Your task to perform on an android device: turn smart compose on in the gmail app Image 0: 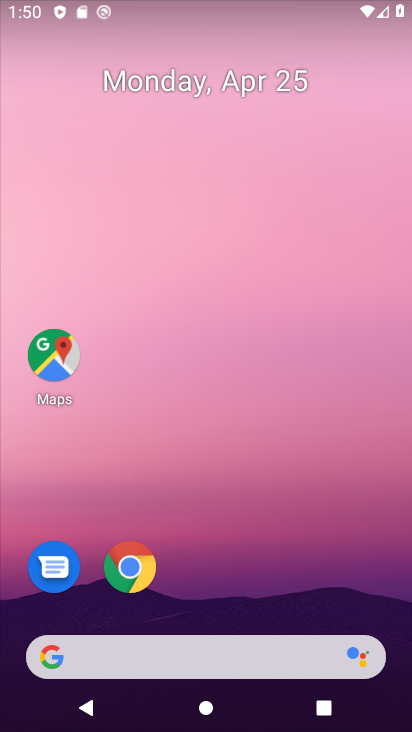
Step 0: drag from (272, 589) to (254, 216)
Your task to perform on an android device: turn smart compose on in the gmail app Image 1: 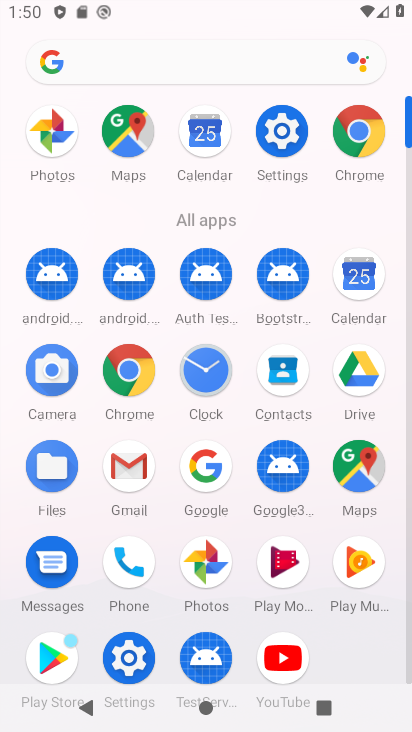
Step 1: click (127, 459)
Your task to perform on an android device: turn smart compose on in the gmail app Image 2: 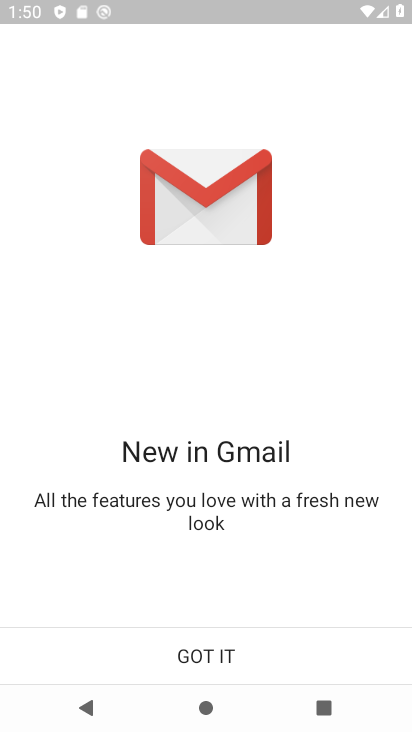
Step 2: click (229, 650)
Your task to perform on an android device: turn smart compose on in the gmail app Image 3: 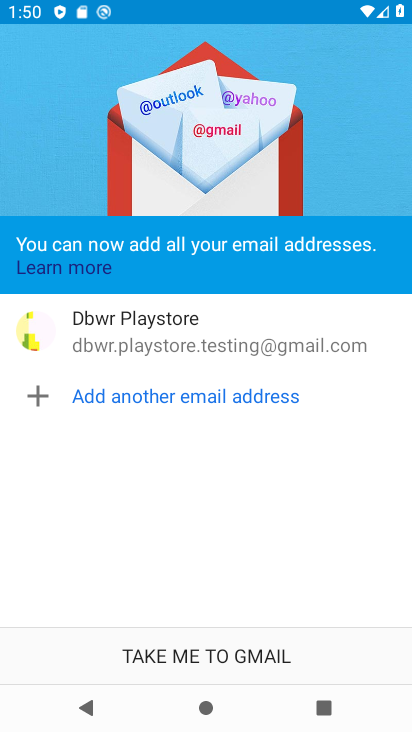
Step 3: click (229, 650)
Your task to perform on an android device: turn smart compose on in the gmail app Image 4: 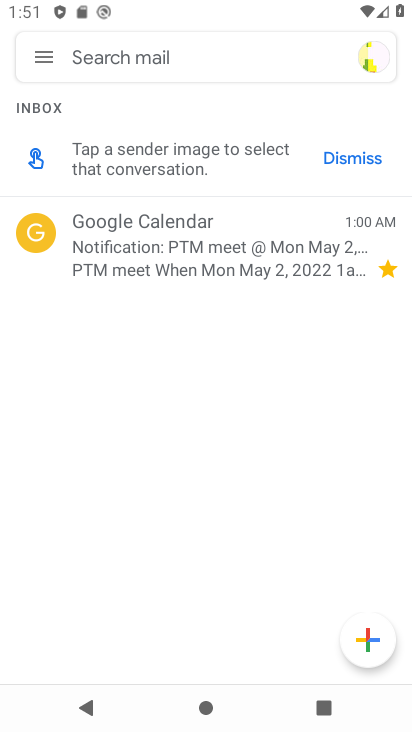
Step 4: click (42, 66)
Your task to perform on an android device: turn smart compose on in the gmail app Image 5: 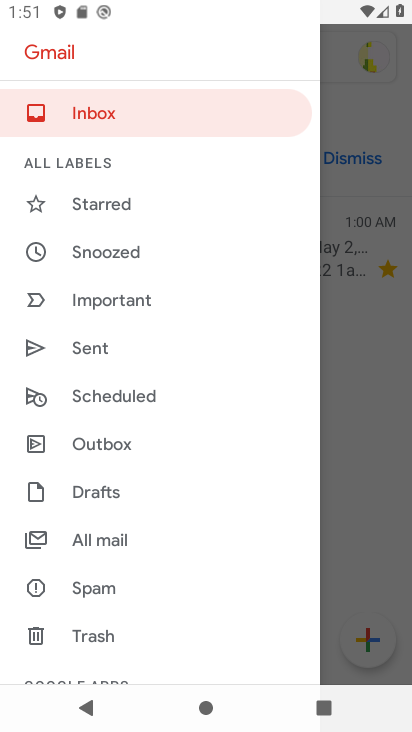
Step 5: drag from (192, 638) to (211, 128)
Your task to perform on an android device: turn smart compose on in the gmail app Image 6: 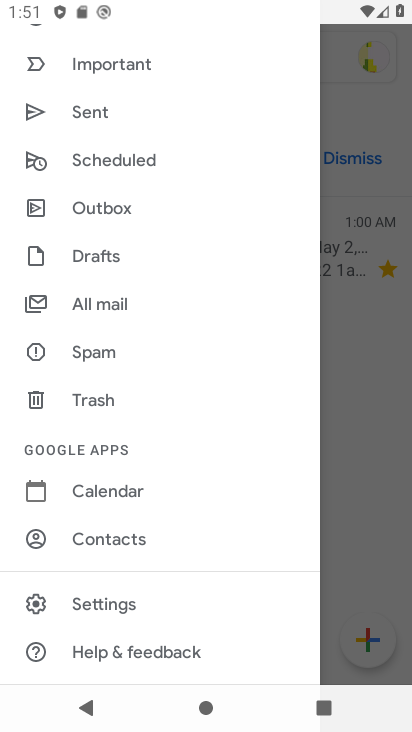
Step 6: click (184, 602)
Your task to perform on an android device: turn smart compose on in the gmail app Image 7: 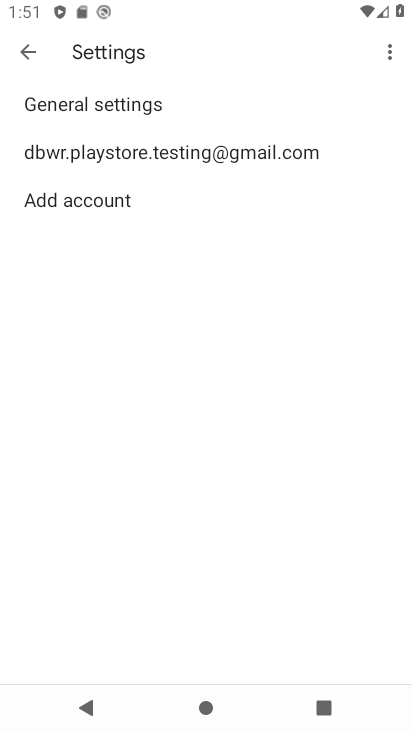
Step 7: click (237, 165)
Your task to perform on an android device: turn smart compose on in the gmail app Image 8: 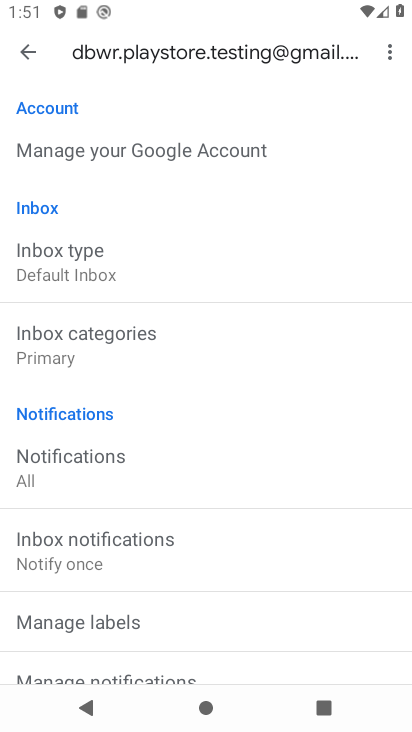
Step 8: task complete